Your task to perform on an android device: Search for seafood restaurants on Google Maps Image 0: 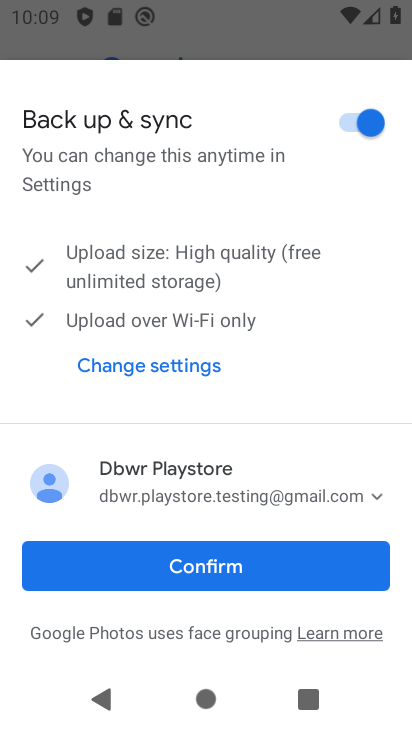
Step 0: press home button
Your task to perform on an android device: Search for seafood restaurants on Google Maps Image 1: 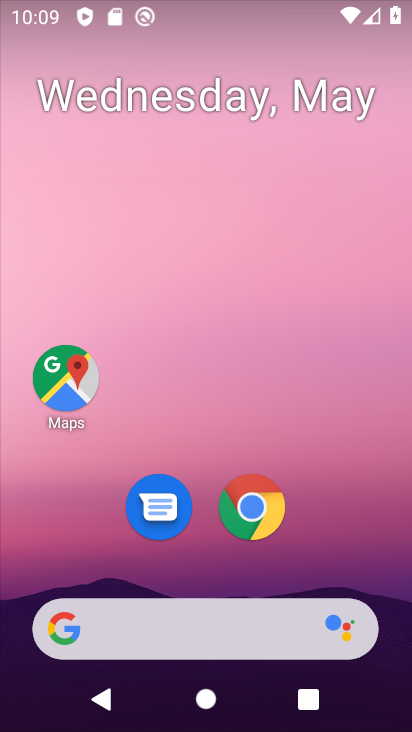
Step 1: drag from (206, 560) to (245, 4)
Your task to perform on an android device: Search for seafood restaurants on Google Maps Image 2: 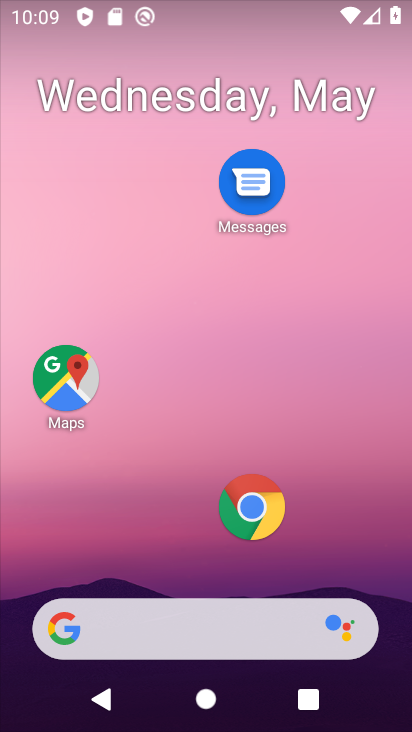
Step 2: drag from (191, 583) to (195, 63)
Your task to perform on an android device: Search for seafood restaurants on Google Maps Image 3: 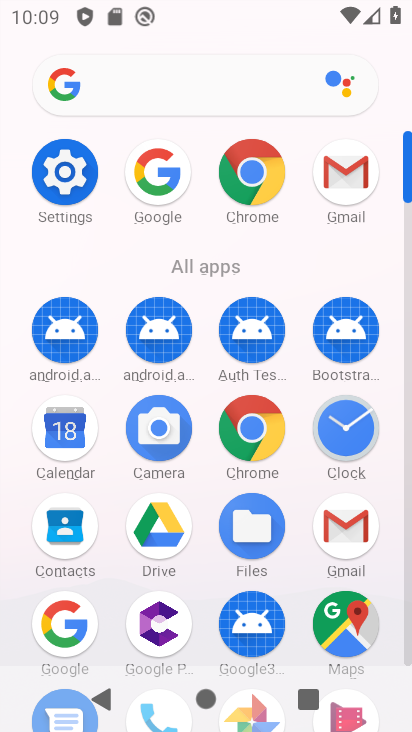
Step 3: click (348, 619)
Your task to perform on an android device: Search for seafood restaurants on Google Maps Image 4: 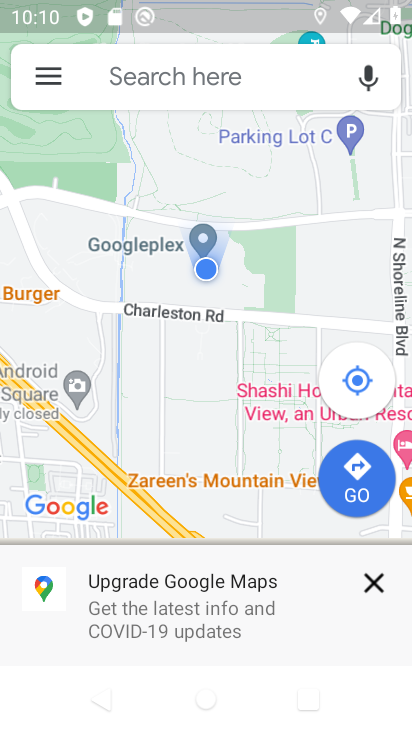
Step 4: click (166, 70)
Your task to perform on an android device: Search for seafood restaurants on Google Maps Image 5: 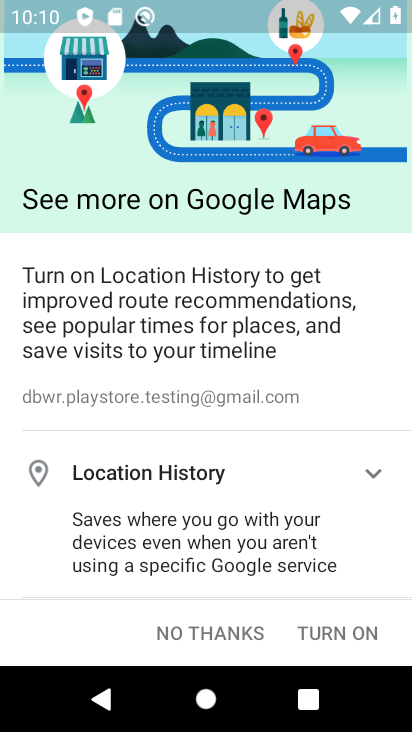
Step 5: click (340, 637)
Your task to perform on an android device: Search for seafood restaurants on Google Maps Image 6: 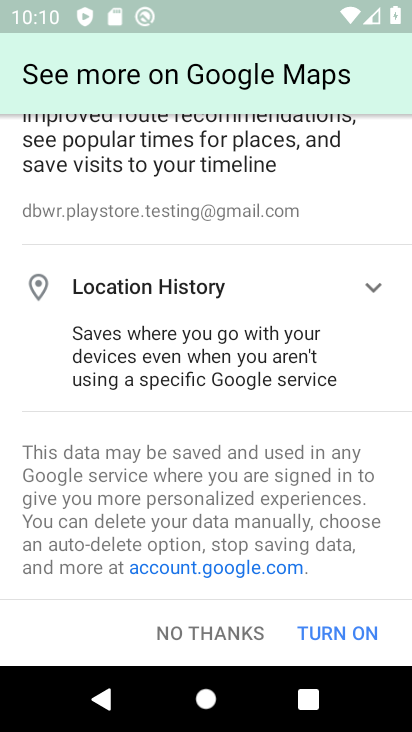
Step 6: click (339, 631)
Your task to perform on an android device: Search for seafood restaurants on Google Maps Image 7: 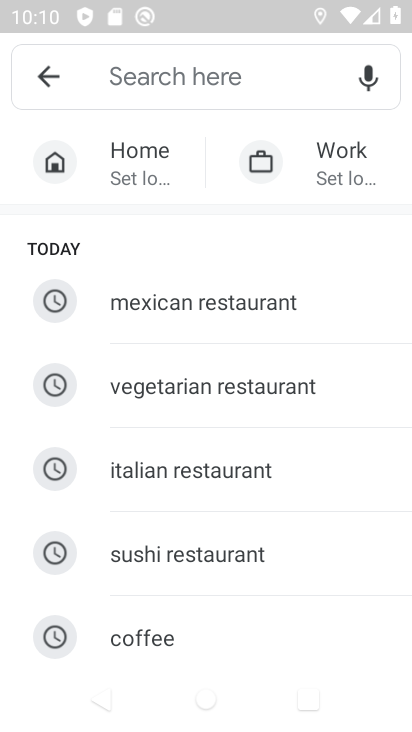
Step 7: click (154, 63)
Your task to perform on an android device: Search for seafood restaurants on Google Maps Image 8: 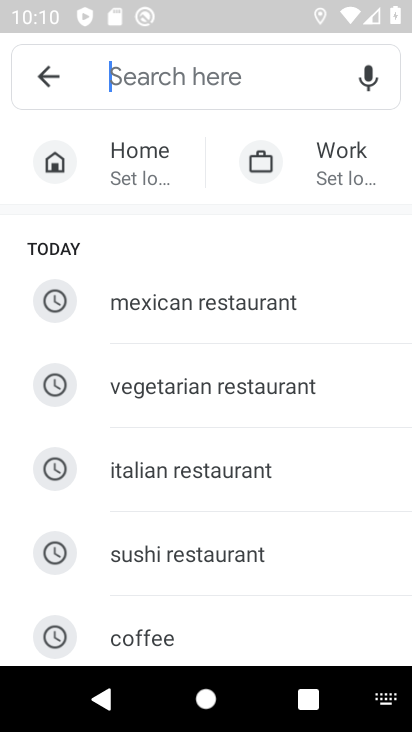
Step 8: drag from (187, 590) to (214, 194)
Your task to perform on an android device: Search for seafood restaurants on Google Maps Image 9: 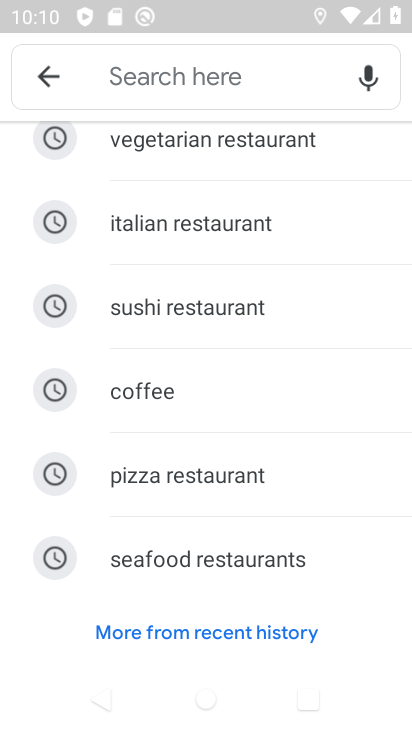
Step 9: click (196, 558)
Your task to perform on an android device: Search for seafood restaurants on Google Maps Image 10: 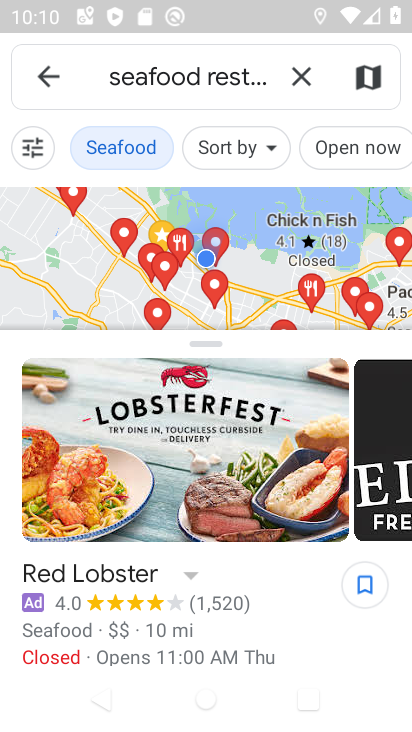
Step 10: task complete